Your task to perform on an android device: When is my next meeting? Image 0: 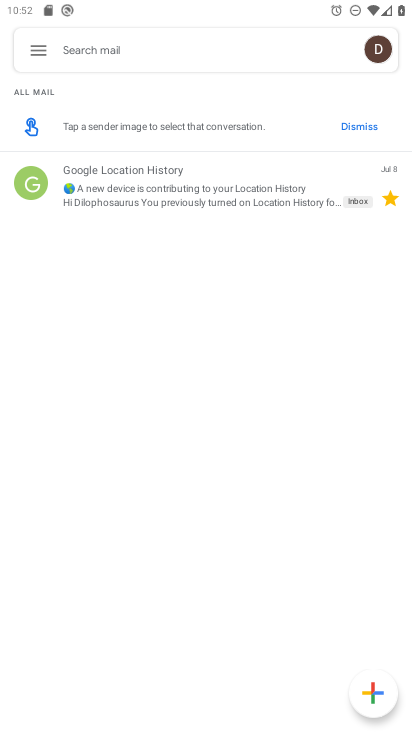
Step 0: press home button
Your task to perform on an android device: When is my next meeting? Image 1: 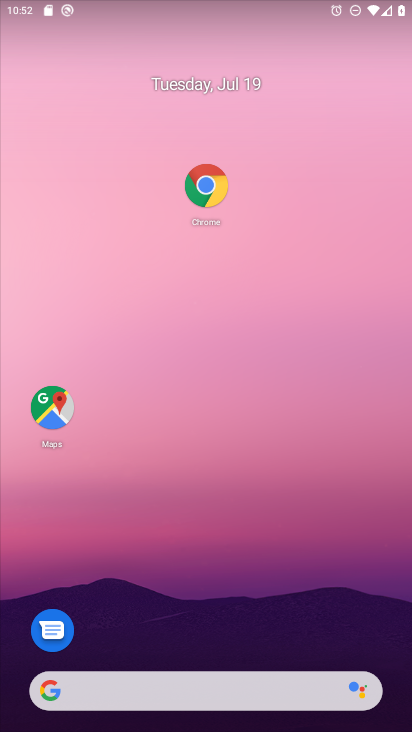
Step 1: drag from (248, 658) to (207, 124)
Your task to perform on an android device: When is my next meeting? Image 2: 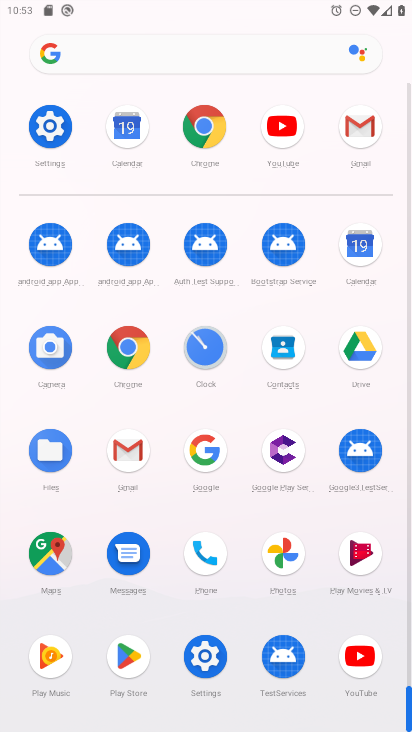
Step 2: click (364, 252)
Your task to perform on an android device: When is my next meeting? Image 3: 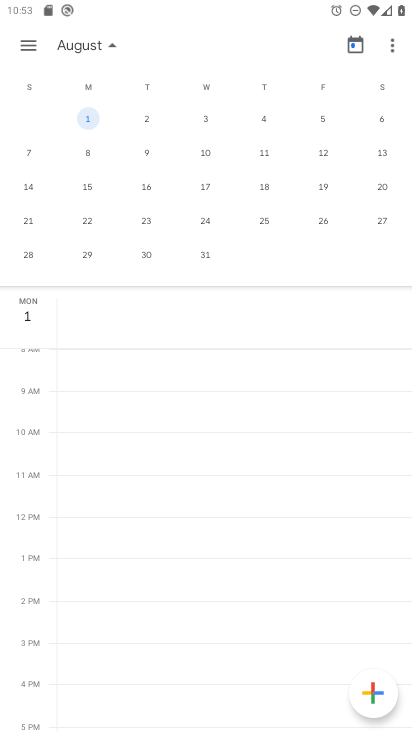
Step 3: drag from (56, 164) to (324, 134)
Your task to perform on an android device: When is my next meeting? Image 4: 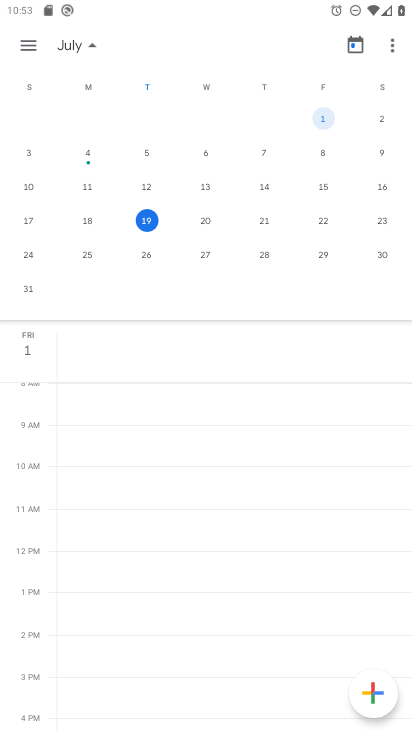
Step 4: click (152, 223)
Your task to perform on an android device: When is my next meeting? Image 5: 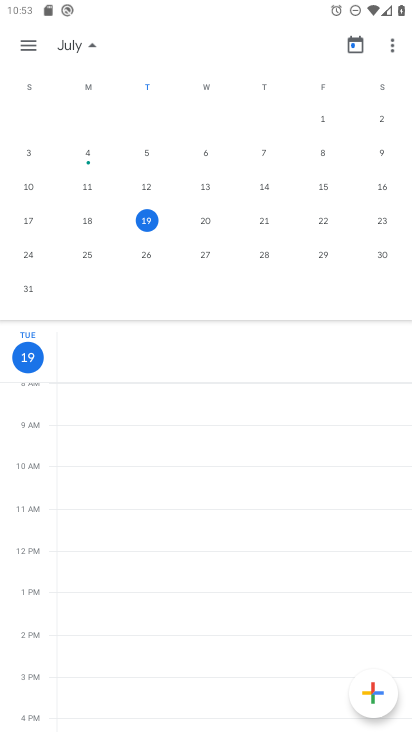
Step 5: click (31, 50)
Your task to perform on an android device: When is my next meeting? Image 6: 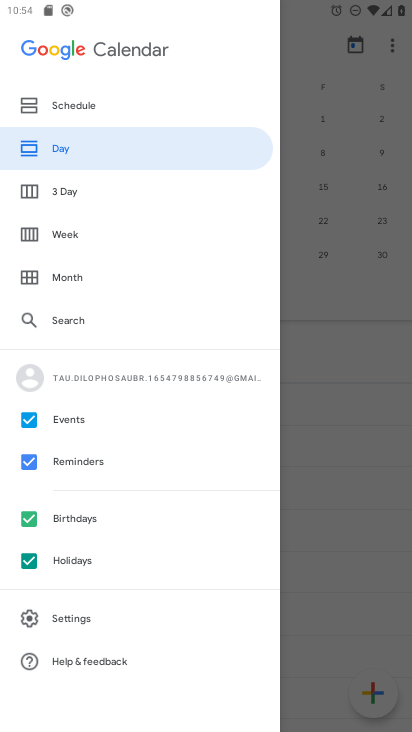
Step 6: click (31, 561)
Your task to perform on an android device: When is my next meeting? Image 7: 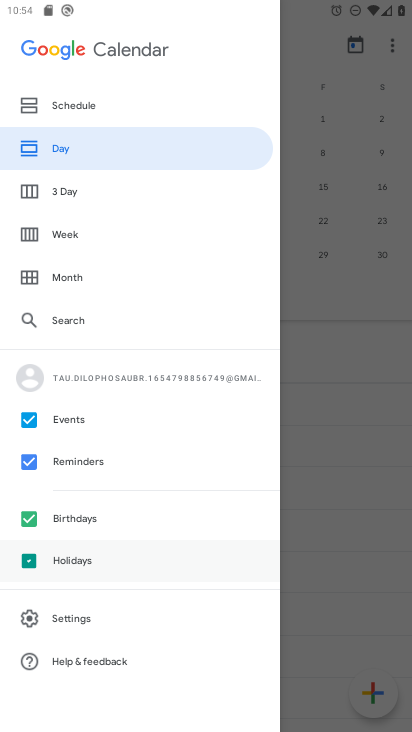
Step 7: click (31, 513)
Your task to perform on an android device: When is my next meeting? Image 8: 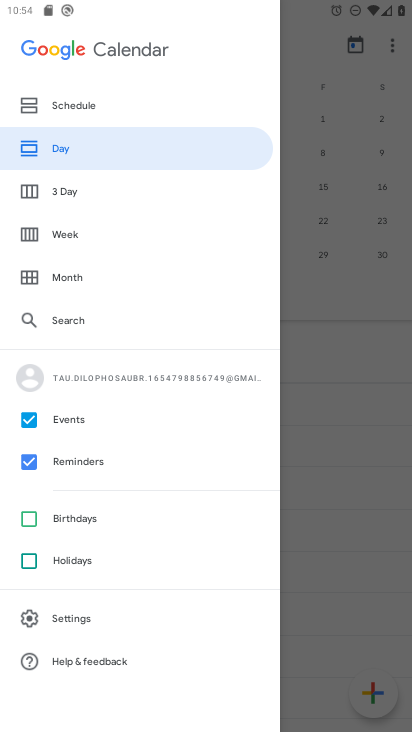
Step 8: click (304, 436)
Your task to perform on an android device: When is my next meeting? Image 9: 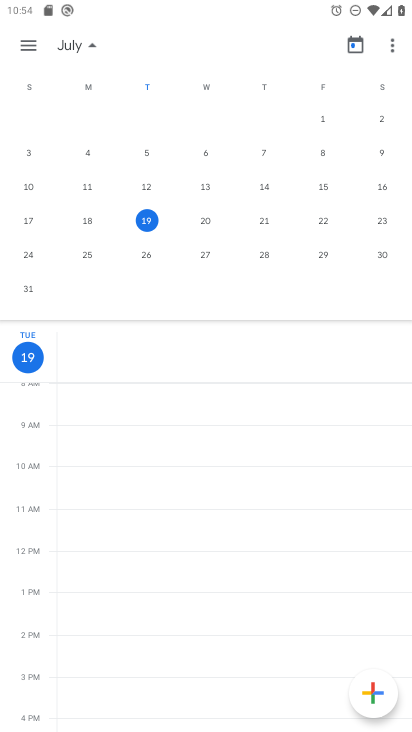
Step 9: task complete